Your task to perform on an android device: Go to privacy settings Image 0: 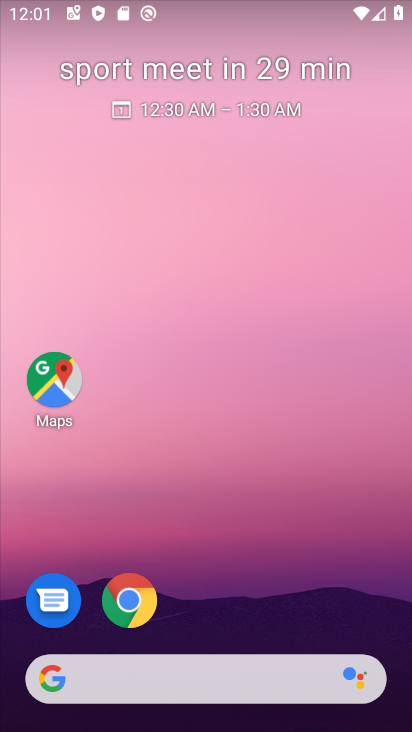
Step 0: drag from (210, 510) to (295, 53)
Your task to perform on an android device: Go to privacy settings Image 1: 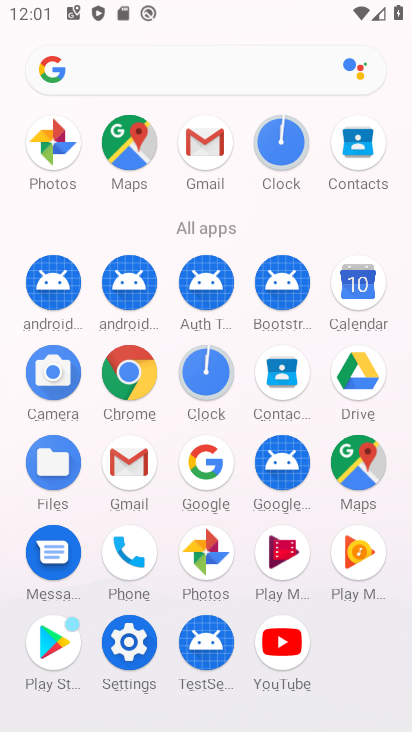
Step 1: click (126, 648)
Your task to perform on an android device: Go to privacy settings Image 2: 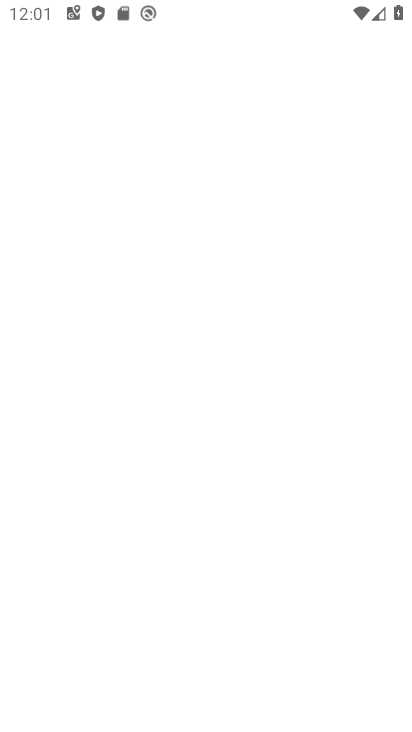
Step 2: drag from (121, 713) to (124, 648)
Your task to perform on an android device: Go to privacy settings Image 3: 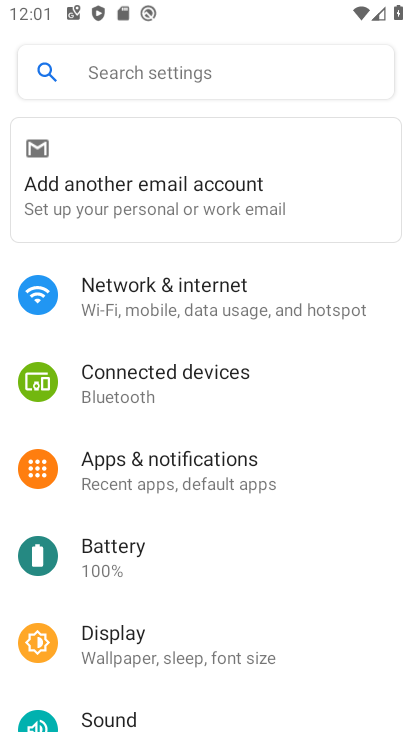
Step 3: drag from (175, 638) to (263, 148)
Your task to perform on an android device: Go to privacy settings Image 4: 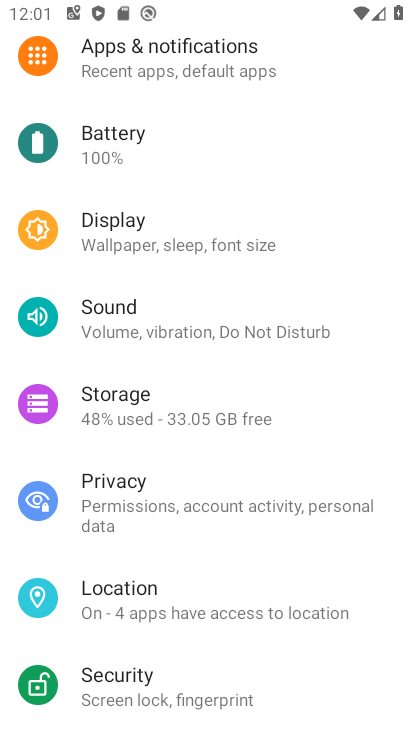
Step 4: click (188, 494)
Your task to perform on an android device: Go to privacy settings Image 5: 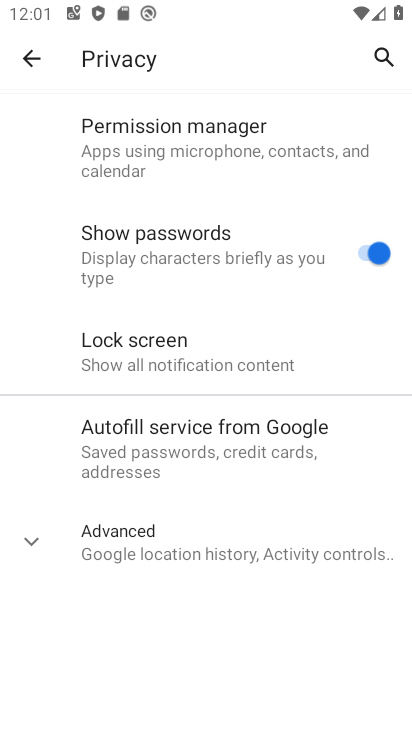
Step 5: task complete